Your task to perform on an android device: install app "Google Duo" Image 0: 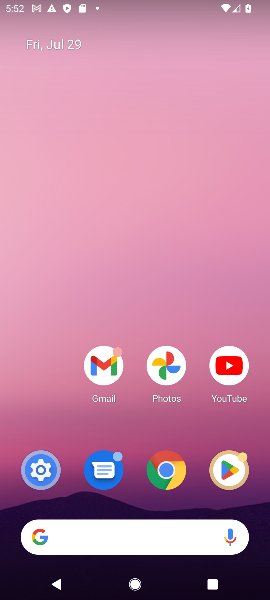
Step 0: drag from (193, 441) to (202, 42)
Your task to perform on an android device: install app "Google Duo" Image 1: 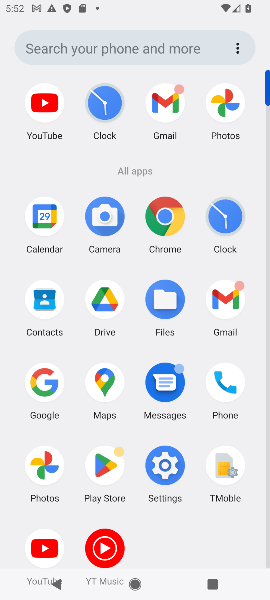
Step 1: click (114, 457)
Your task to perform on an android device: install app "Google Duo" Image 2: 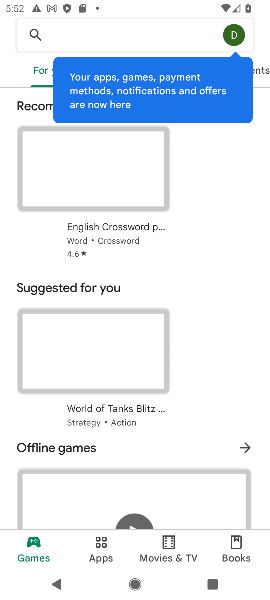
Step 2: click (157, 37)
Your task to perform on an android device: install app "Google Duo" Image 3: 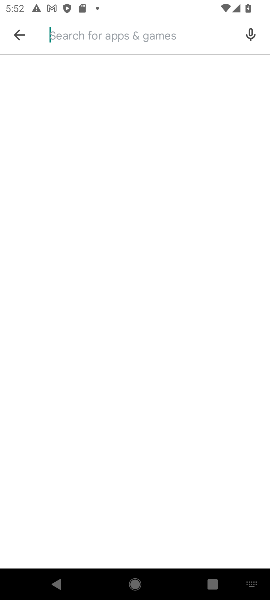
Step 3: type "Google Duo"
Your task to perform on an android device: install app "Google Duo" Image 4: 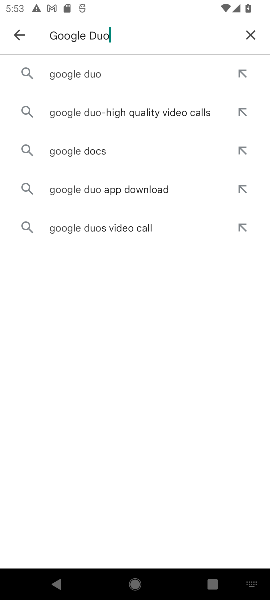
Step 4: press enter
Your task to perform on an android device: install app "Google Duo" Image 5: 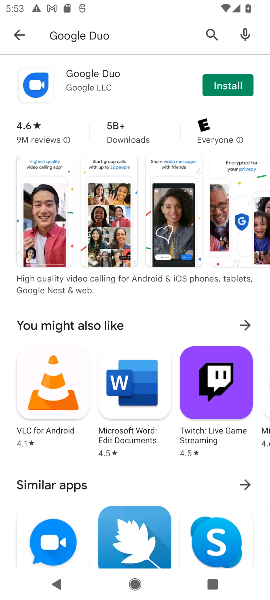
Step 5: click (240, 86)
Your task to perform on an android device: install app "Google Duo" Image 6: 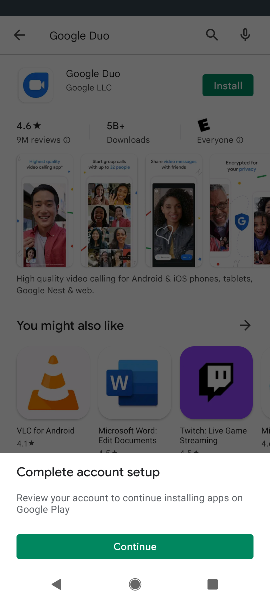
Step 6: click (192, 538)
Your task to perform on an android device: install app "Google Duo" Image 7: 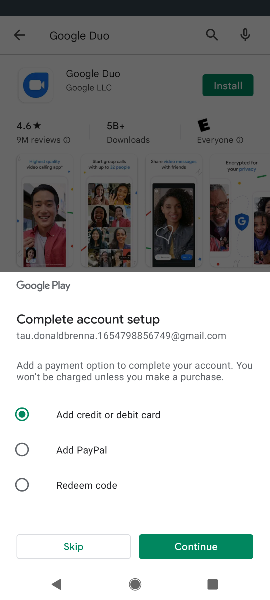
Step 7: click (74, 549)
Your task to perform on an android device: install app "Google Duo" Image 8: 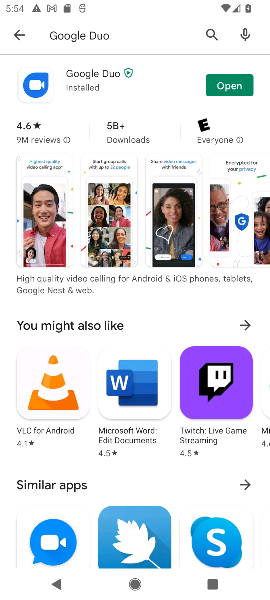
Step 8: task complete